Your task to perform on an android device: Look up the best rated headphones on Aliexpress Image 0: 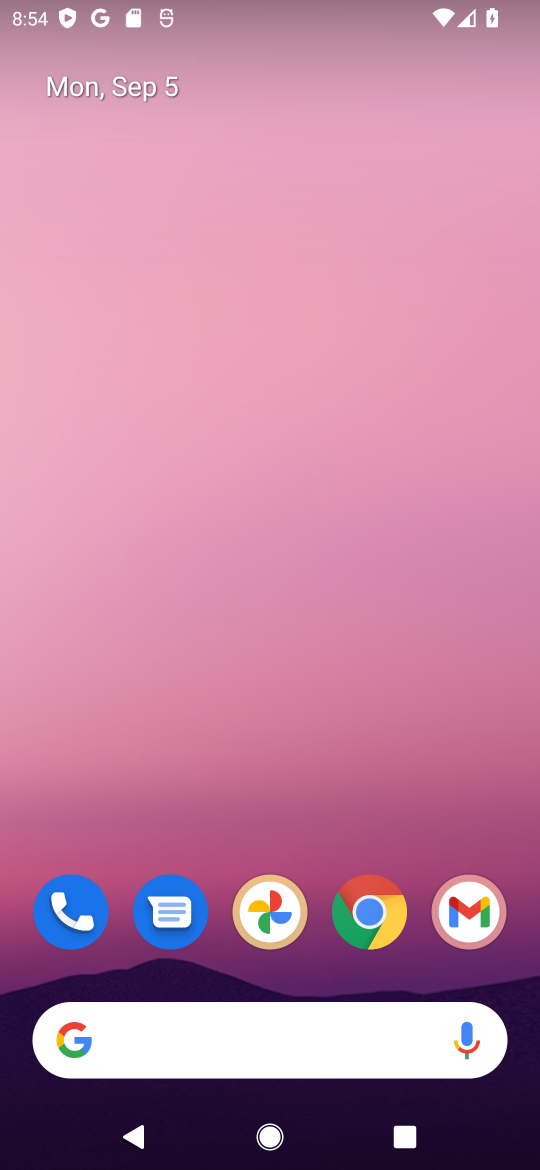
Step 0: click (390, 925)
Your task to perform on an android device: Look up the best rated headphones on Aliexpress Image 1: 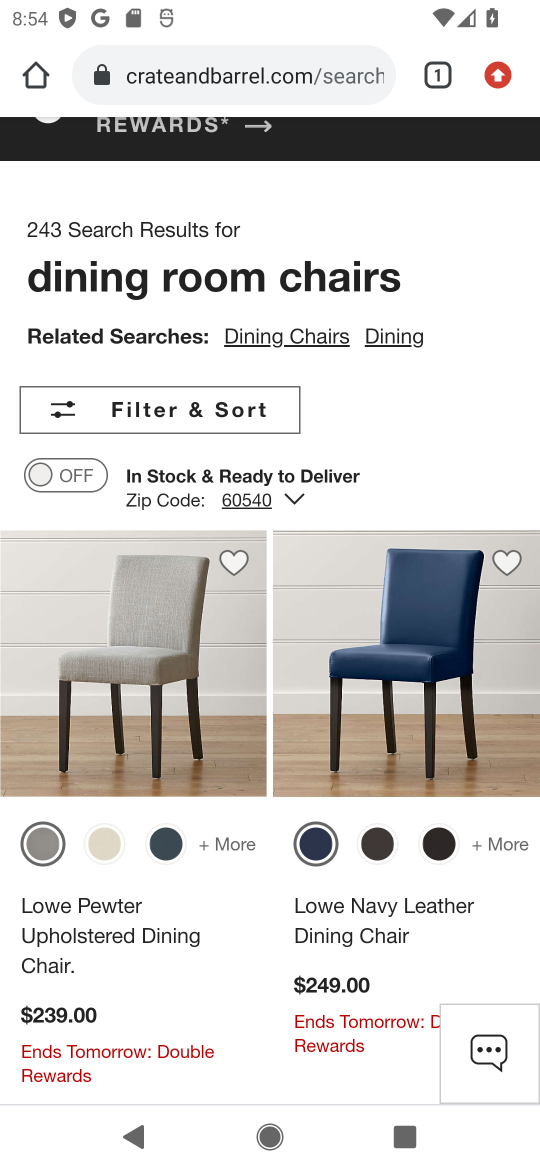
Step 1: click (251, 76)
Your task to perform on an android device: Look up the best rated headphones on Aliexpress Image 2: 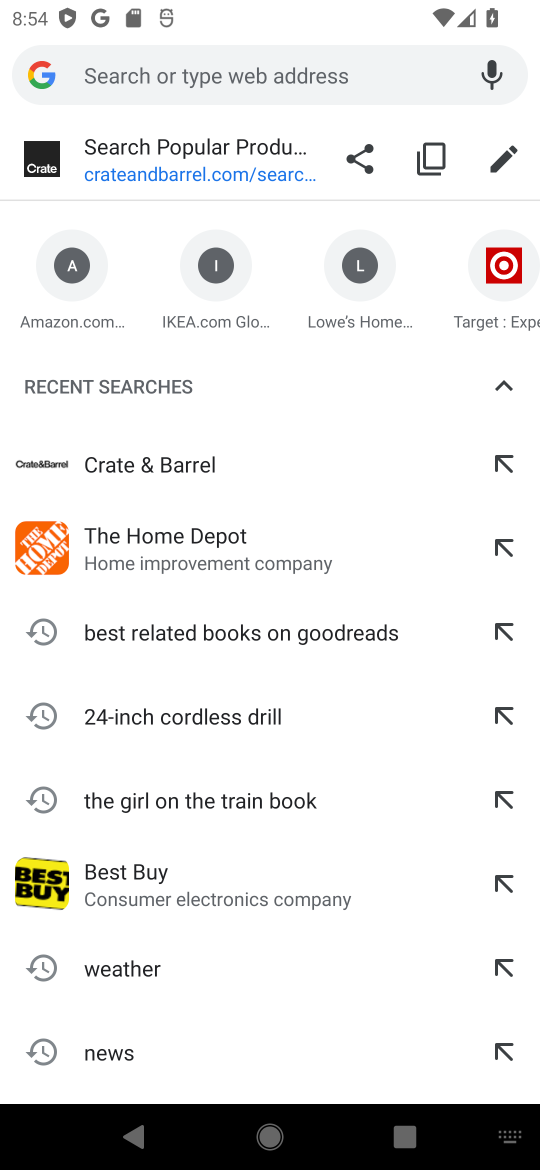
Step 2: type "aliexpress"
Your task to perform on an android device: Look up the best rated headphones on Aliexpress Image 3: 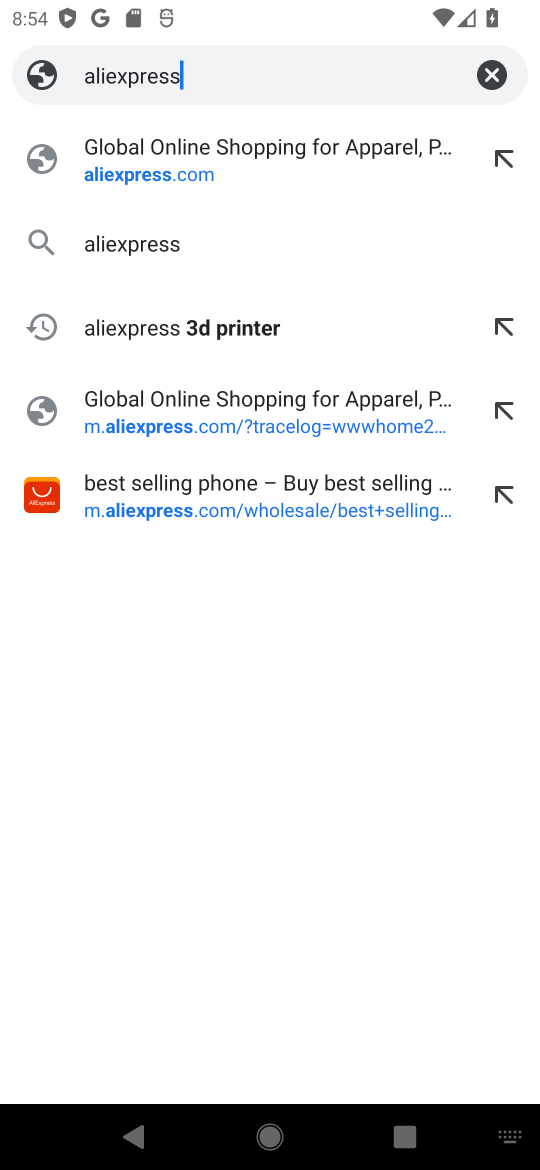
Step 3: press enter
Your task to perform on an android device: Look up the best rated headphones on Aliexpress Image 4: 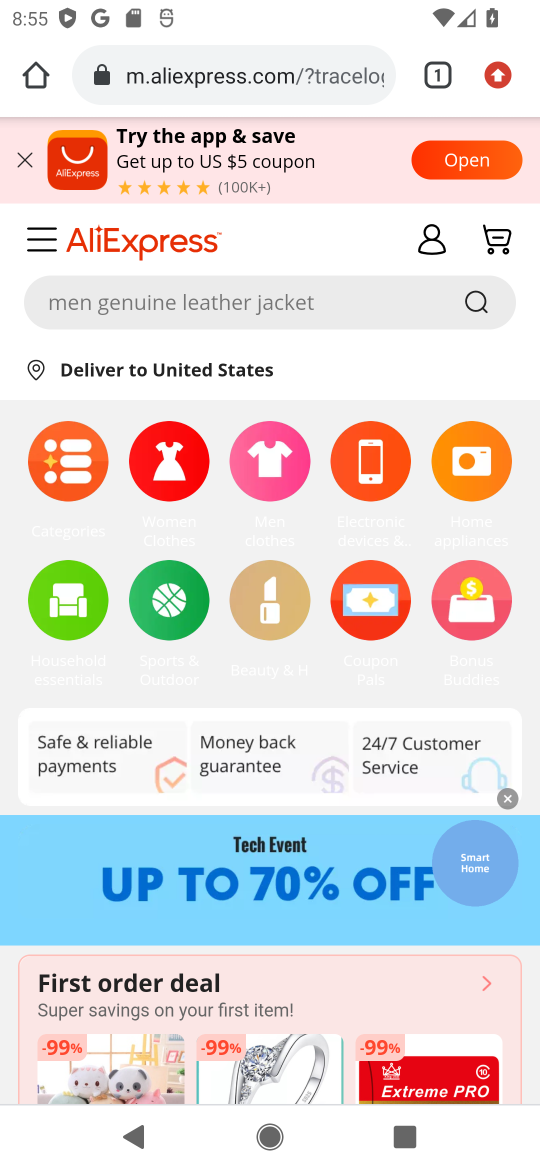
Step 4: click (152, 312)
Your task to perform on an android device: Look up the best rated headphones on Aliexpress Image 5: 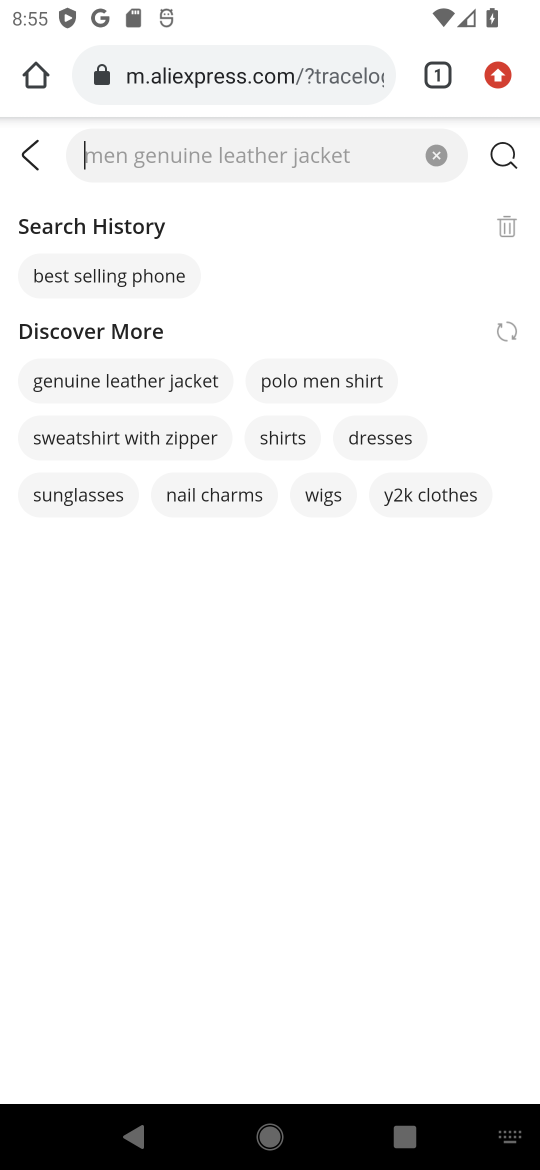
Step 5: type "headphones"
Your task to perform on an android device: Look up the best rated headphones on Aliexpress Image 6: 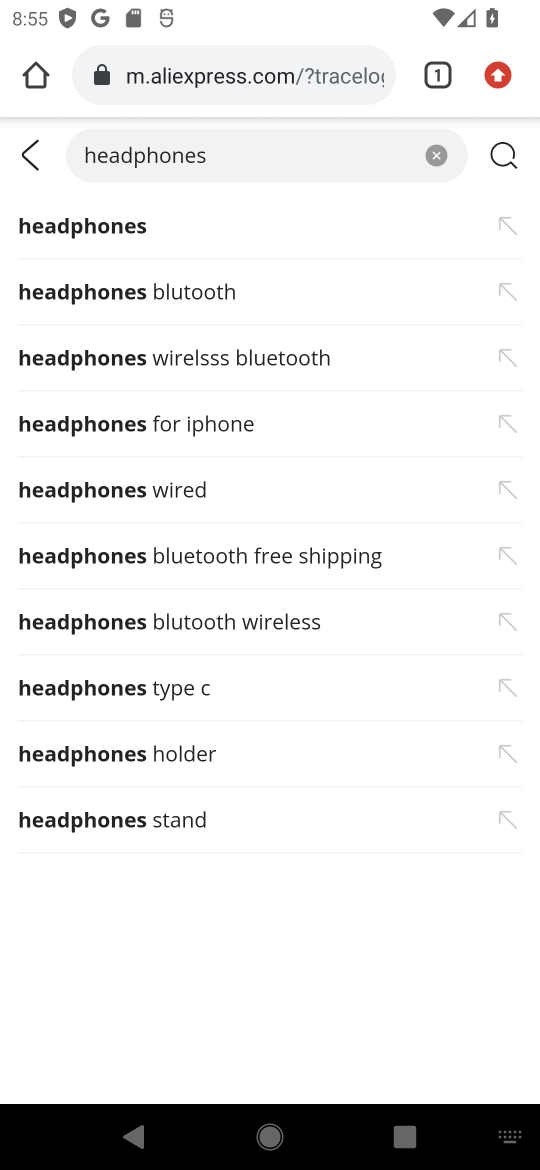
Step 6: press enter
Your task to perform on an android device: Look up the best rated headphones on Aliexpress Image 7: 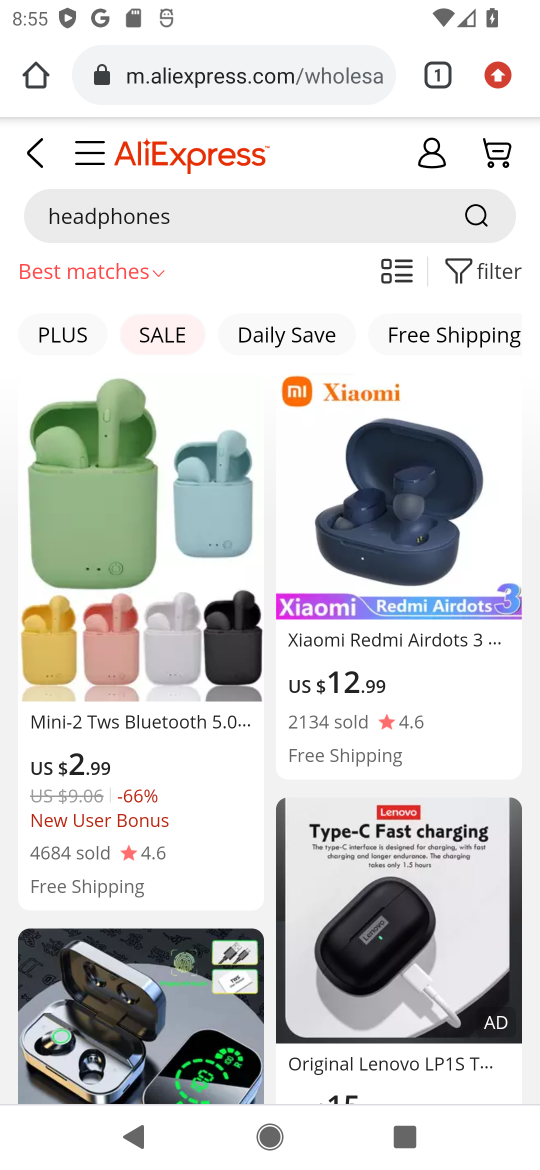
Step 7: click (462, 275)
Your task to perform on an android device: Look up the best rated headphones on Aliexpress Image 8: 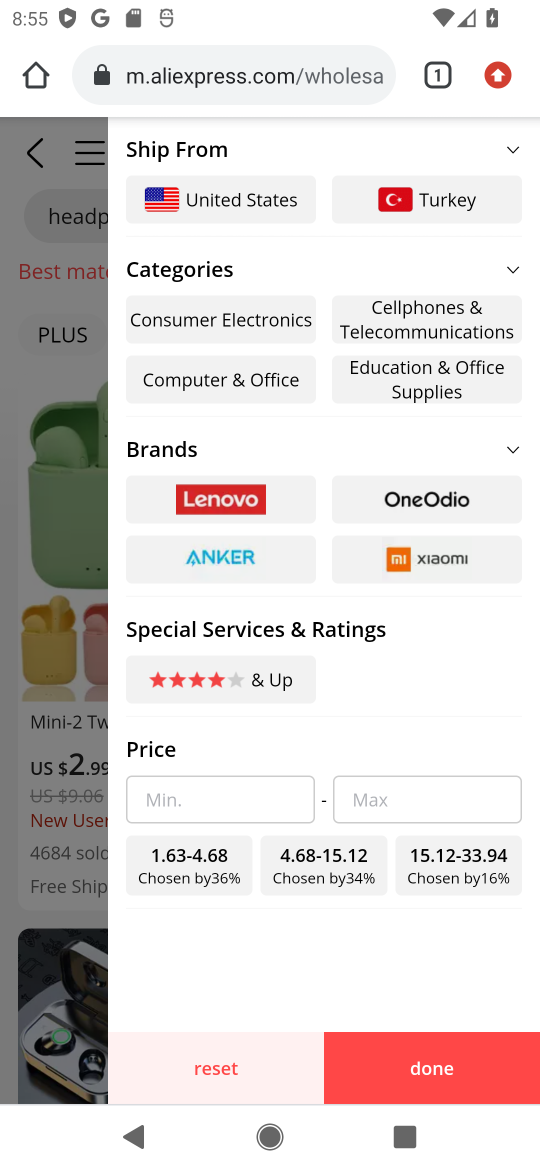
Step 8: click (240, 688)
Your task to perform on an android device: Look up the best rated headphones on Aliexpress Image 9: 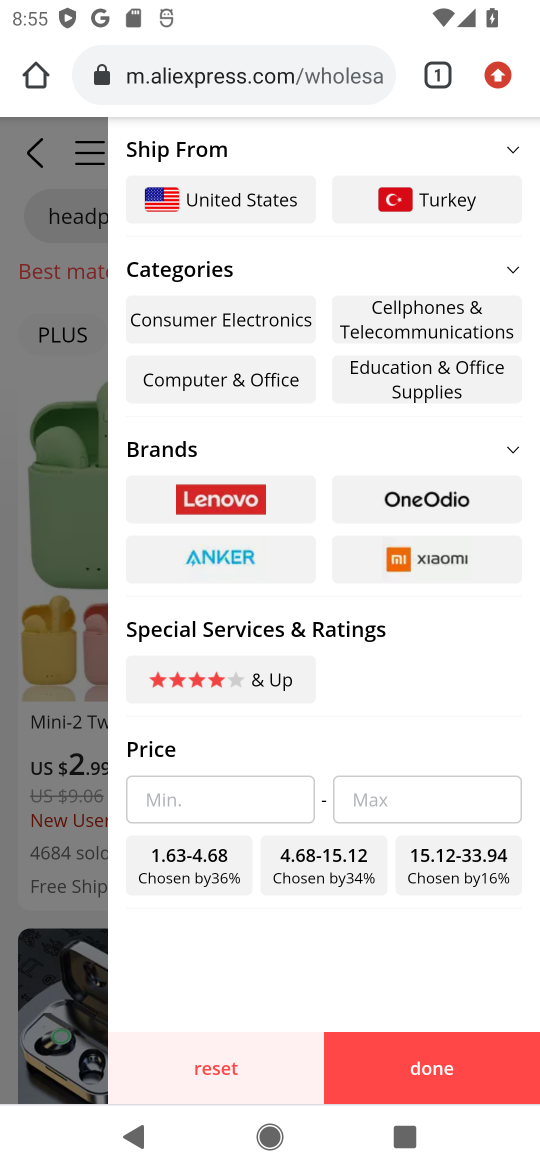
Step 9: click (281, 683)
Your task to perform on an android device: Look up the best rated headphones on Aliexpress Image 10: 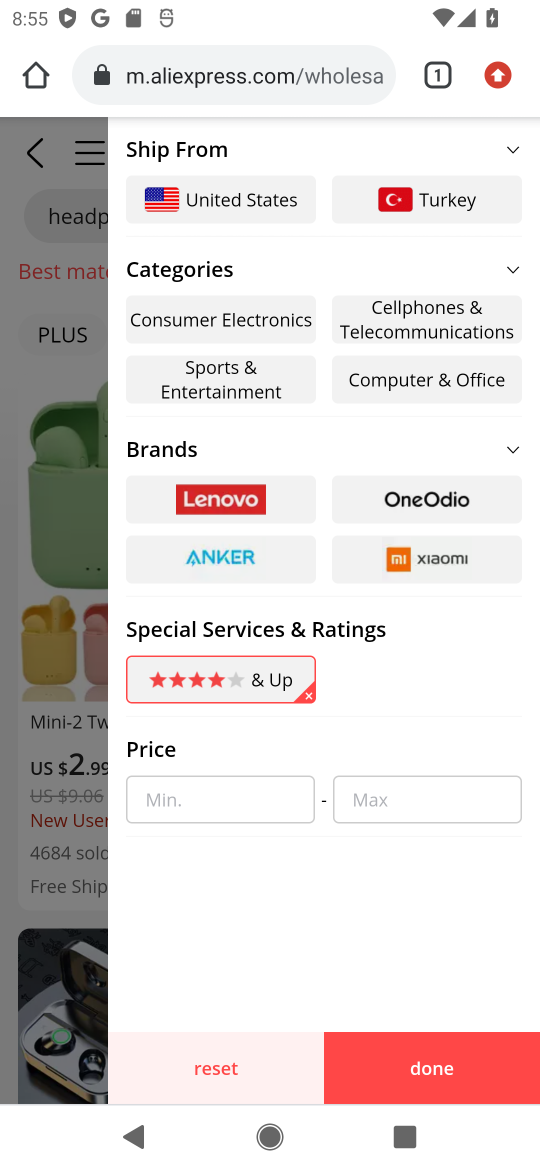
Step 10: click (479, 1066)
Your task to perform on an android device: Look up the best rated headphones on Aliexpress Image 11: 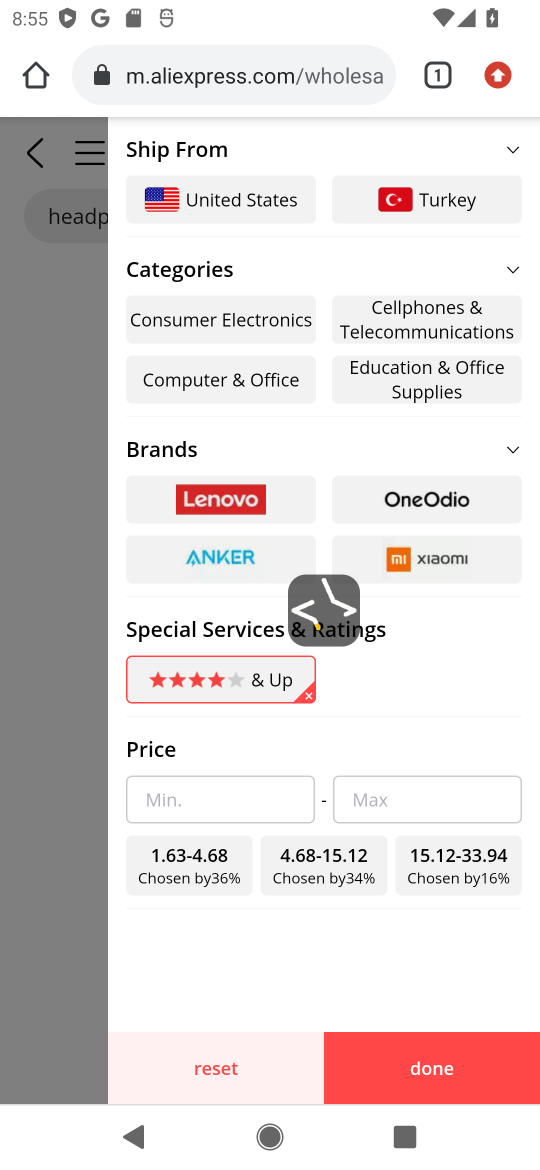
Step 11: click (35, 654)
Your task to perform on an android device: Look up the best rated headphones on Aliexpress Image 12: 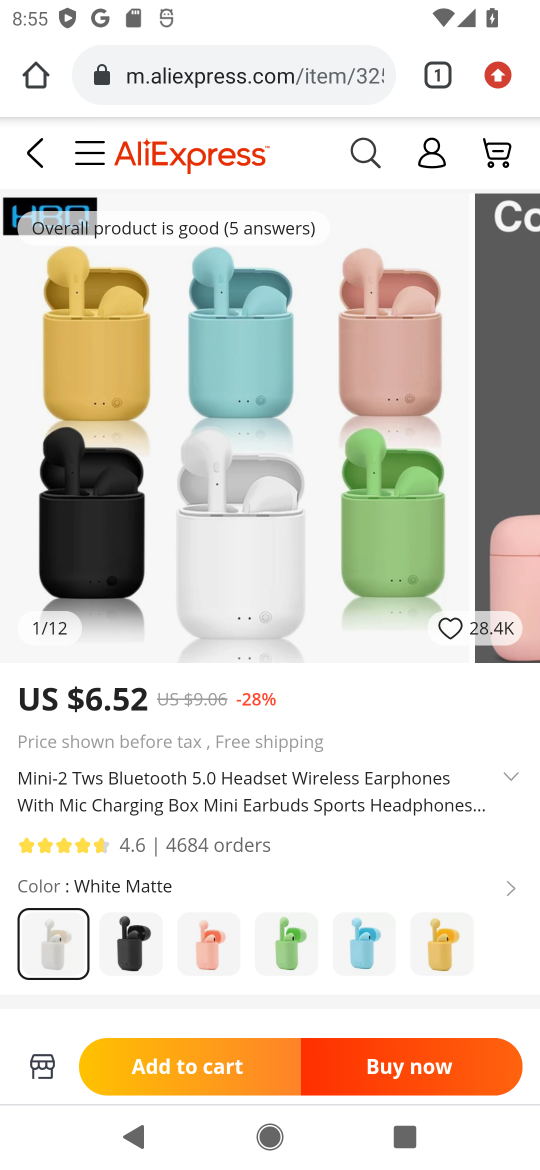
Step 12: drag from (441, 709) to (438, 820)
Your task to perform on an android device: Look up the best rated headphones on Aliexpress Image 13: 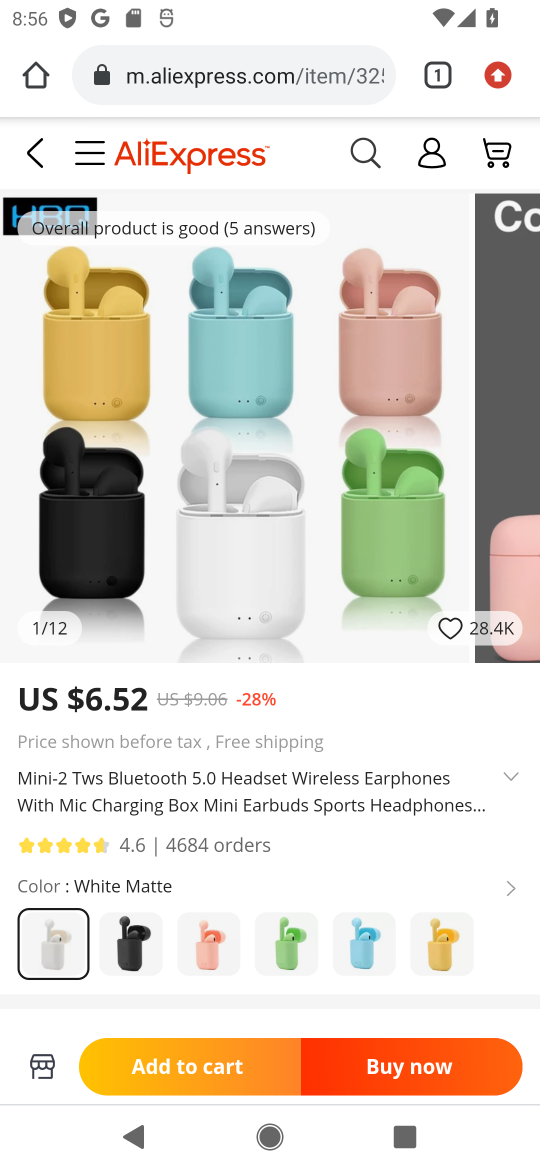
Step 13: drag from (488, 495) to (5, 636)
Your task to perform on an android device: Look up the best rated headphones on Aliexpress Image 14: 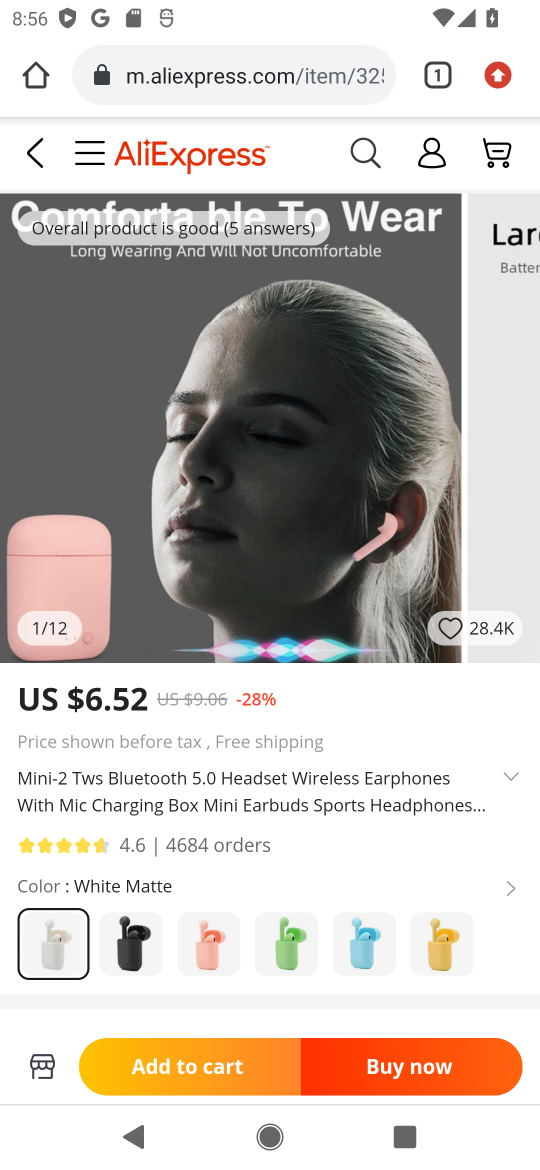
Step 14: drag from (280, 798) to (266, 395)
Your task to perform on an android device: Look up the best rated headphones on Aliexpress Image 15: 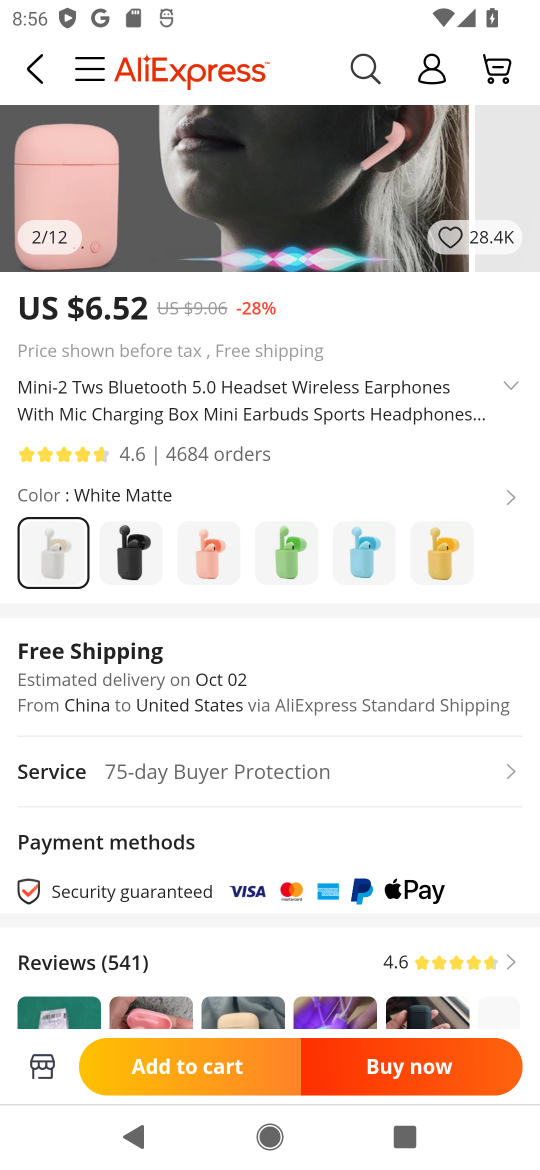
Step 15: press back button
Your task to perform on an android device: Look up the best rated headphones on Aliexpress Image 16: 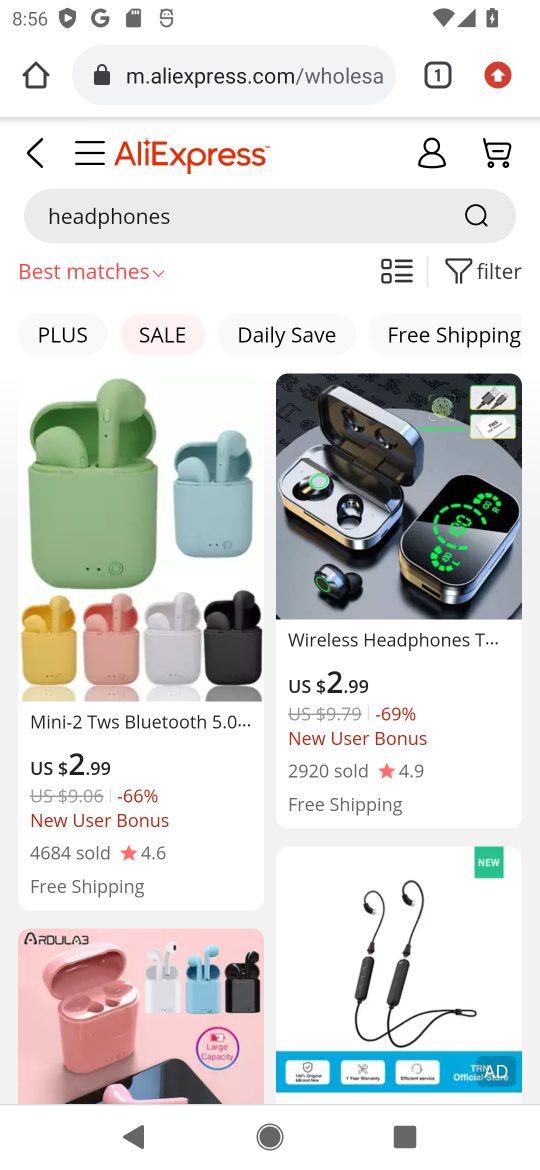
Step 16: click (430, 508)
Your task to perform on an android device: Look up the best rated headphones on Aliexpress Image 17: 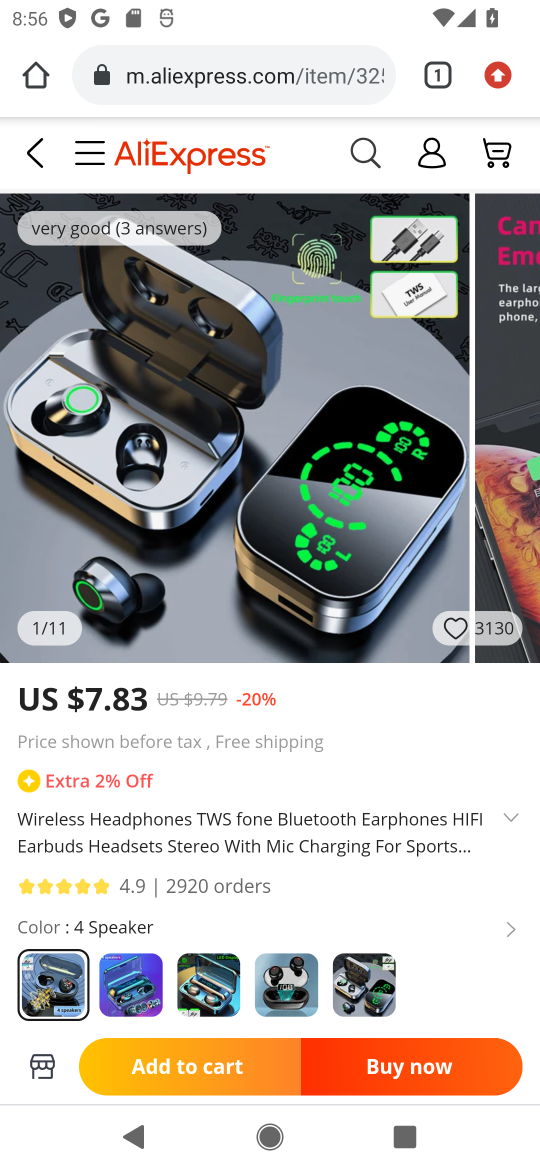
Step 17: click (372, 474)
Your task to perform on an android device: Look up the best rated headphones on Aliexpress Image 18: 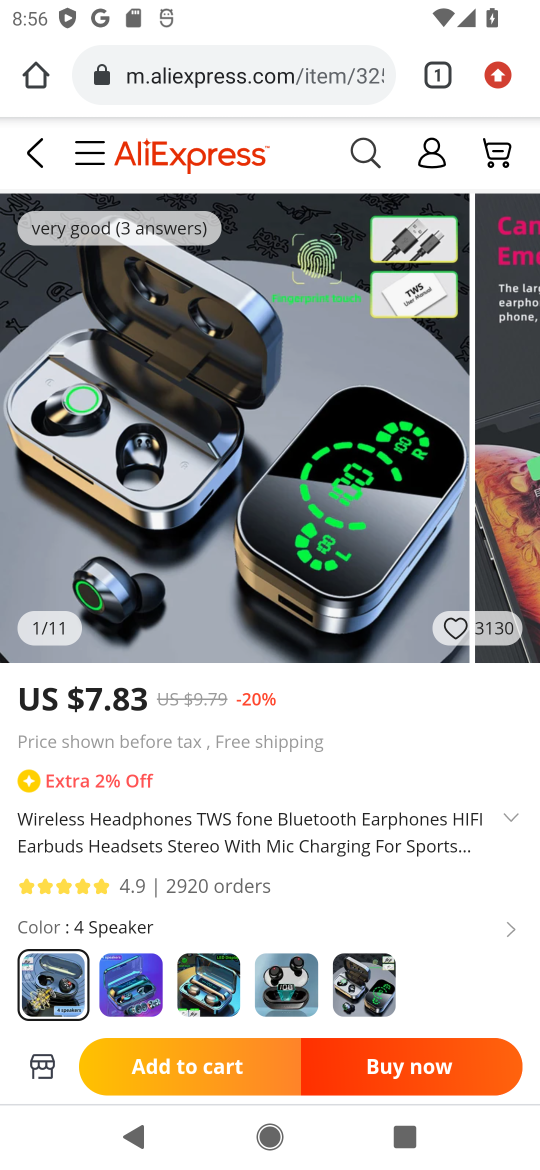
Step 18: task complete